Your task to perform on an android device: Go to display settings Image 0: 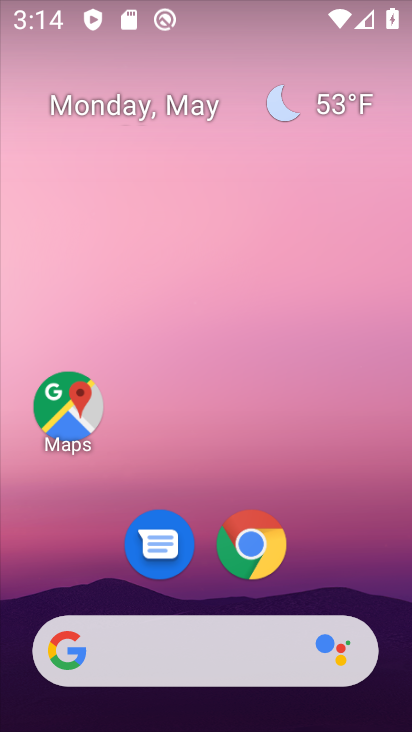
Step 0: drag from (142, 724) to (122, 90)
Your task to perform on an android device: Go to display settings Image 1: 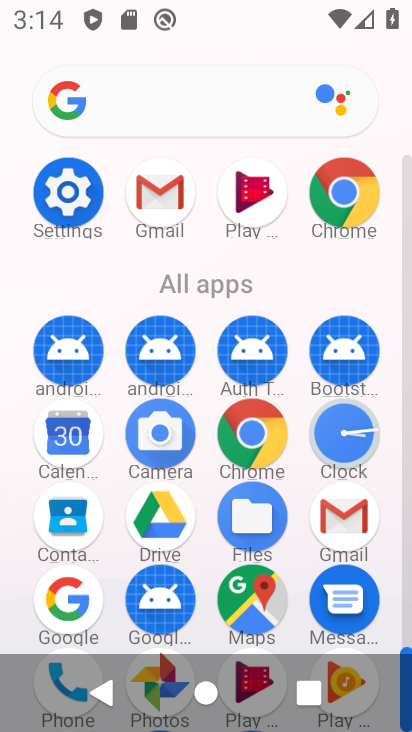
Step 1: click (70, 200)
Your task to perform on an android device: Go to display settings Image 2: 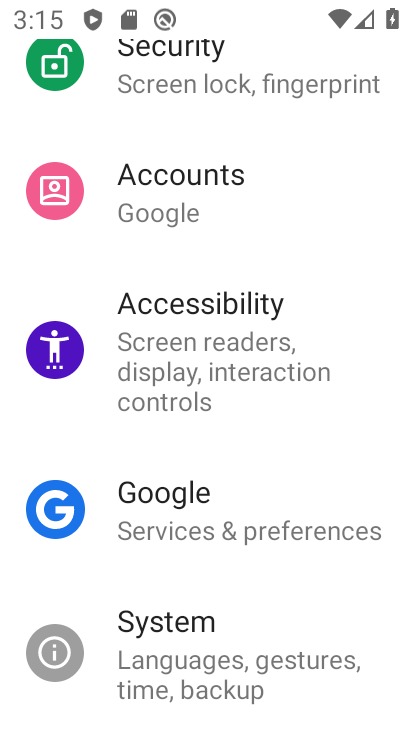
Step 2: drag from (257, 193) to (266, 705)
Your task to perform on an android device: Go to display settings Image 3: 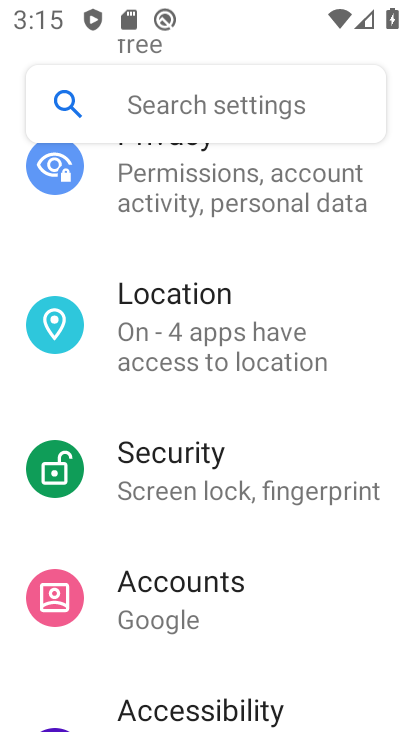
Step 3: drag from (268, 272) to (253, 655)
Your task to perform on an android device: Go to display settings Image 4: 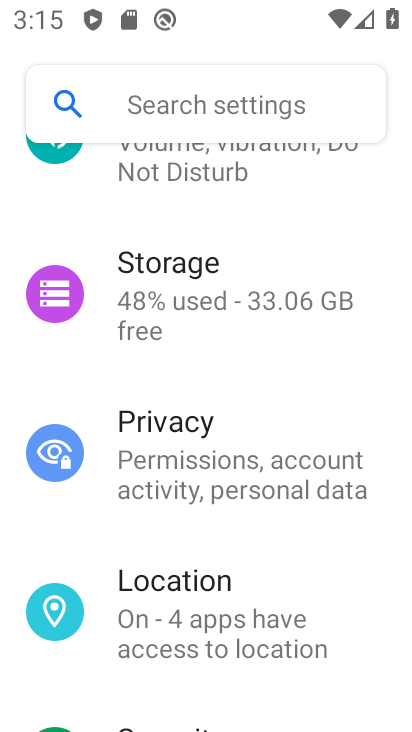
Step 4: drag from (287, 341) to (298, 637)
Your task to perform on an android device: Go to display settings Image 5: 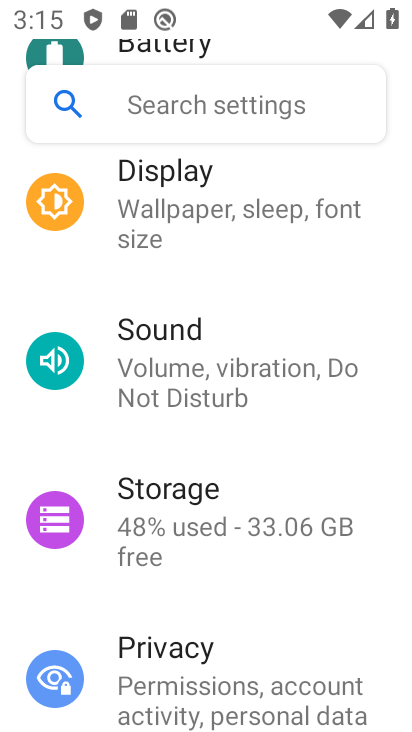
Step 5: click (169, 218)
Your task to perform on an android device: Go to display settings Image 6: 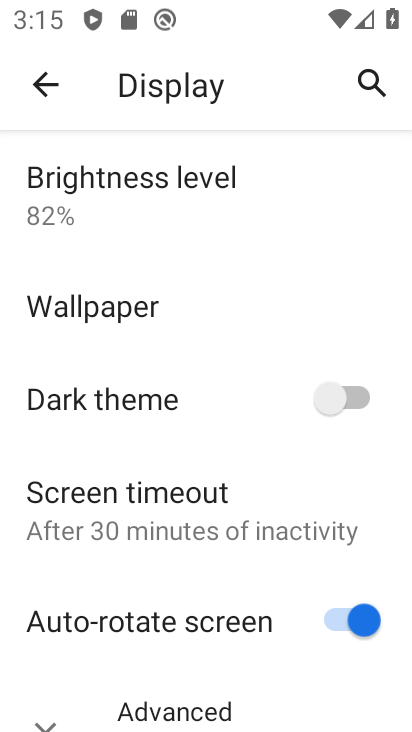
Step 6: task complete